Your task to perform on an android device: turn off notifications settings in the gmail app Image 0: 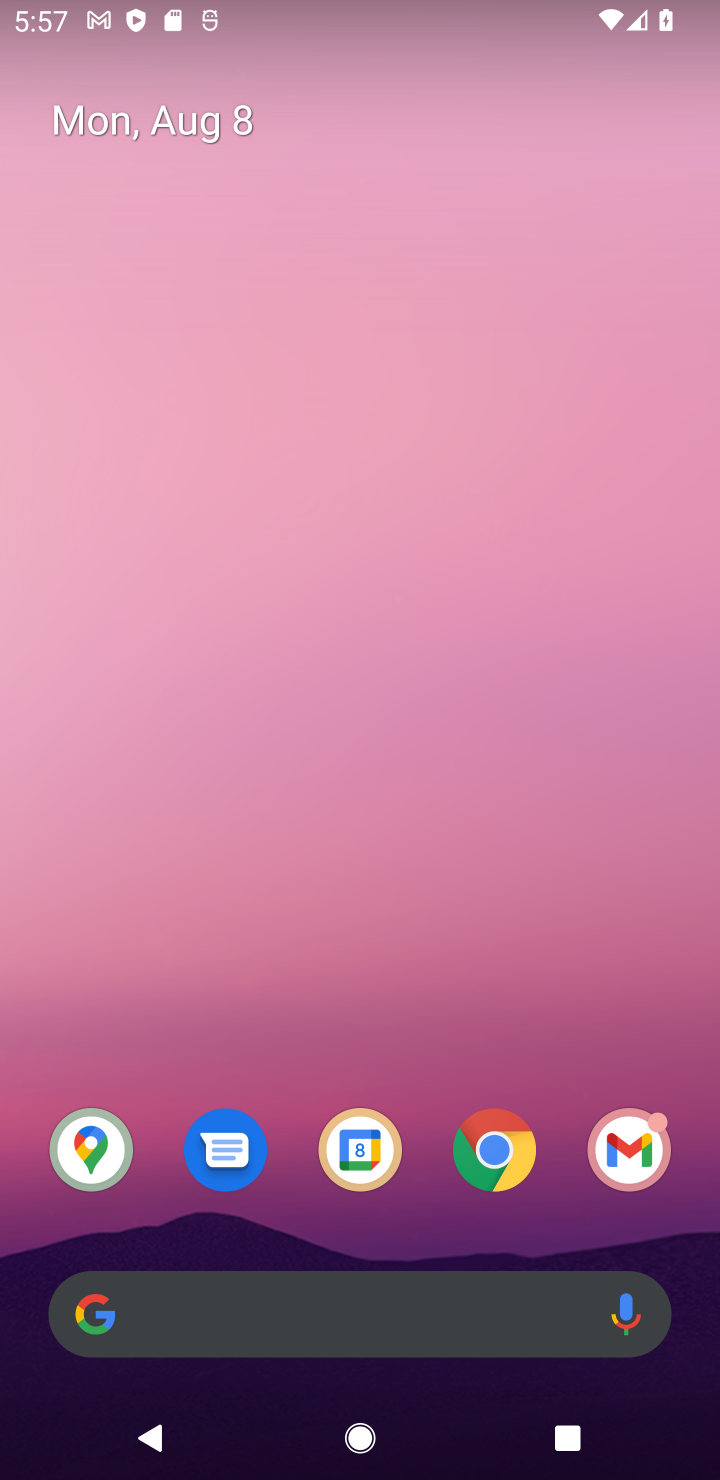
Step 0: click (647, 1183)
Your task to perform on an android device: turn off notifications settings in the gmail app Image 1: 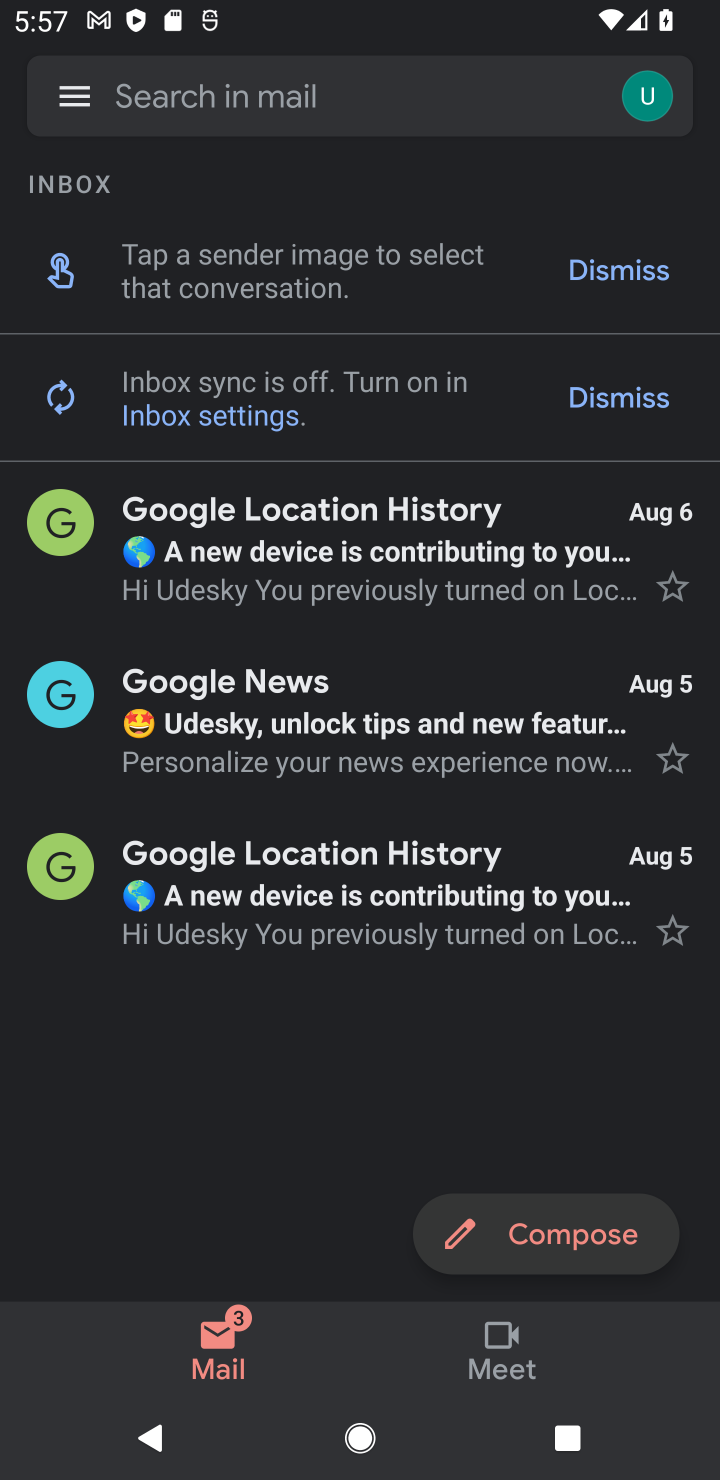
Step 1: task complete